Your task to perform on an android device: Go to display settings Image 0: 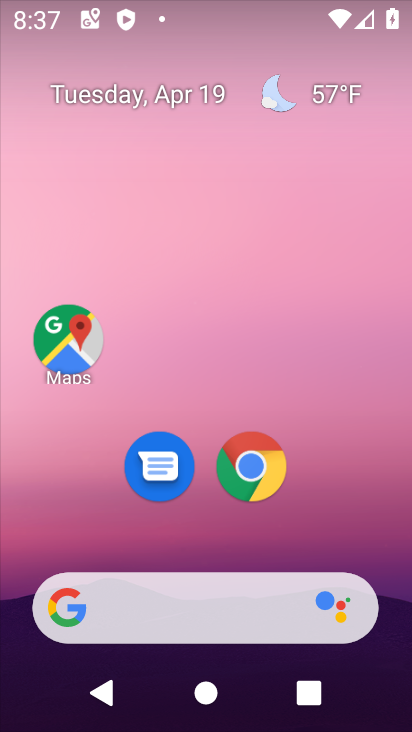
Step 0: drag from (204, 718) to (186, 93)
Your task to perform on an android device: Go to display settings Image 1: 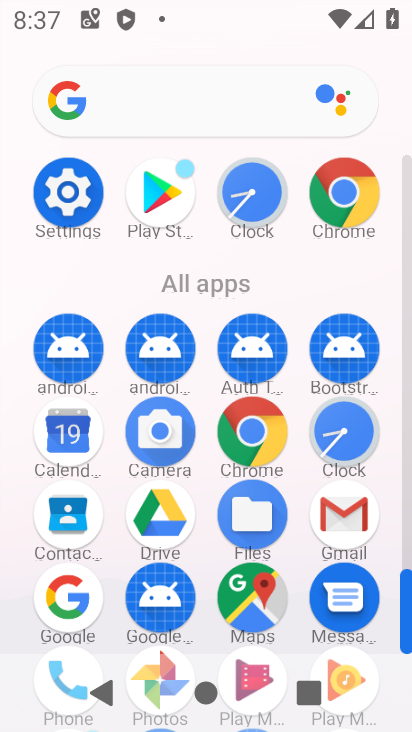
Step 1: click (64, 194)
Your task to perform on an android device: Go to display settings Image 2: 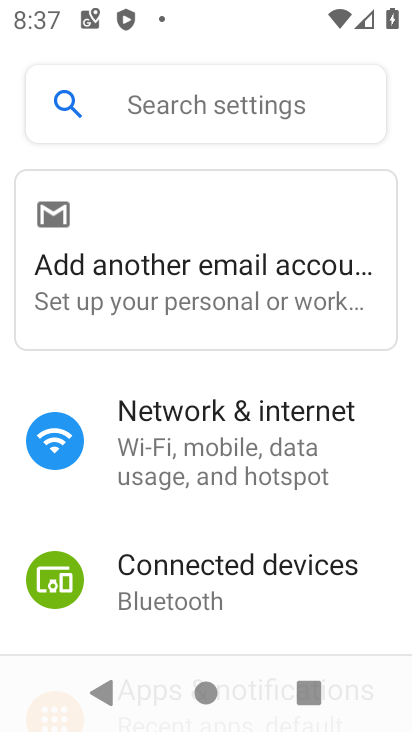
Step 2: drag from (245, 626) to (240, 252)
Your task to perform on an android device: Go to display settings Image 3: 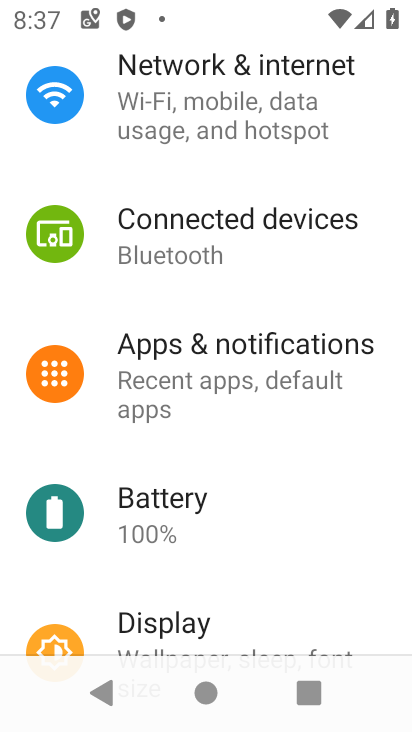
Step 3: click (168, 620)
Your task to perform on an android device: Go to display settings Image 4: 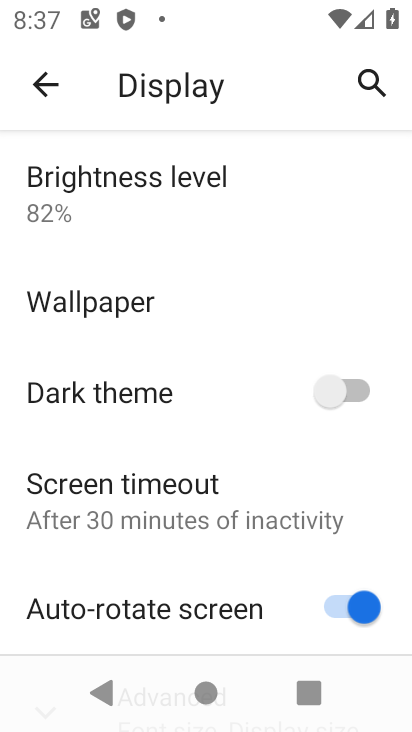
Step 4: task complete